Your task to perform on an android device: Open the calendar and show me this week's events Image 0: 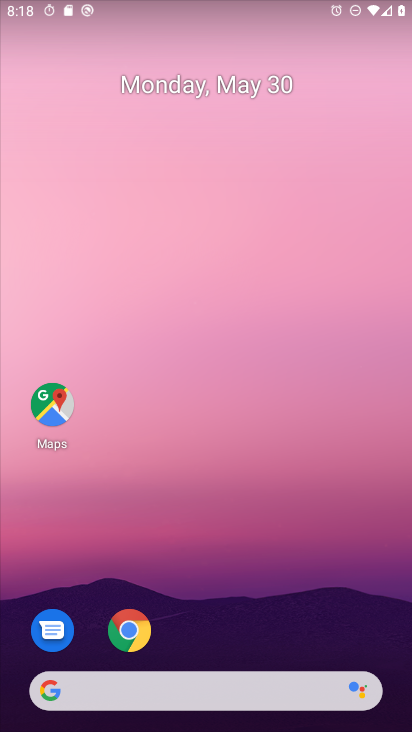
Step 0: drag from (384, 630) to (311, 91)
Your task to perform on an android device: Open the calendar and show me this week's events Image 1: 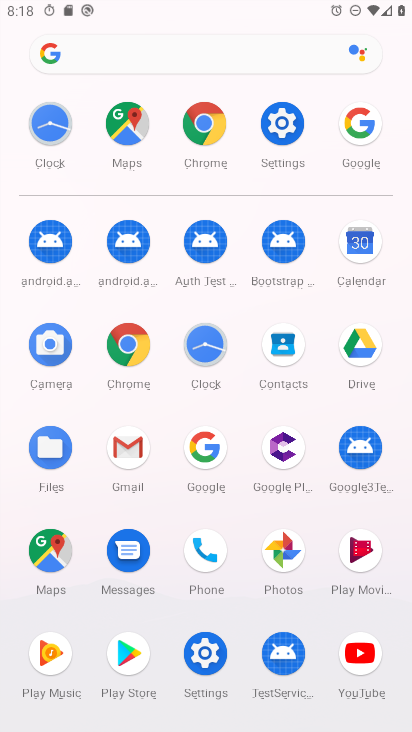
Step 1: click (364, 249)
Your task to perform on an android device: Open the calendar and show me this week's events Image 2: 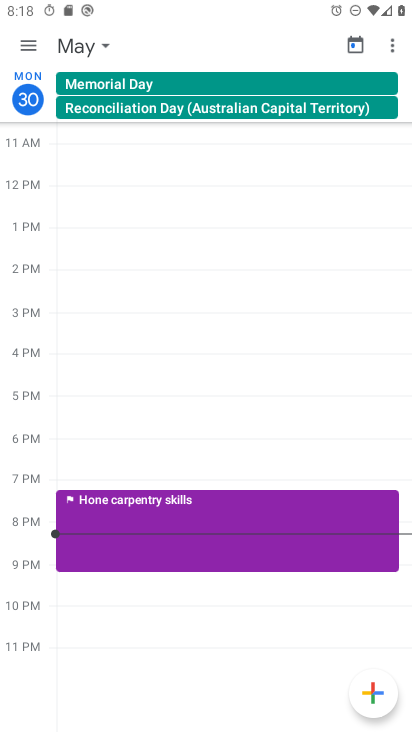
Step 2: task complete